Your task to perform on an android device: toggle wifi Image 0: 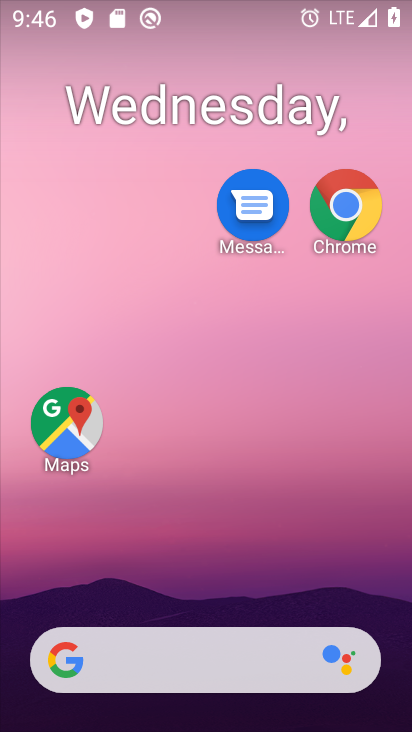
Step 0: drag from (222, 578) to (219, 284)
Your task to perform on an android device: toggle wifi Image 1: 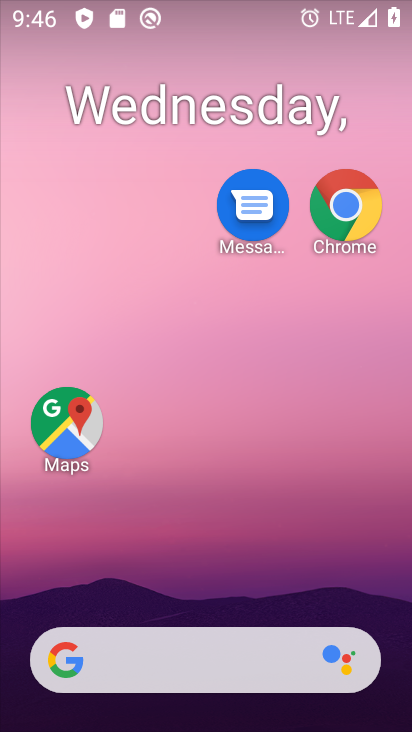
Step 1: drag from (233, 564) to (284, 38)
Your task to perform on an android device: toggle wifi Image 2: 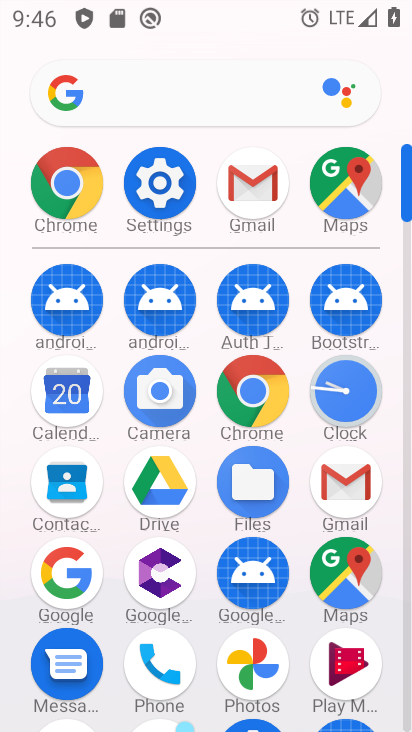
Step 2: click (138, 185)
Your task to perform on an android device: toggle wifi Image 3: 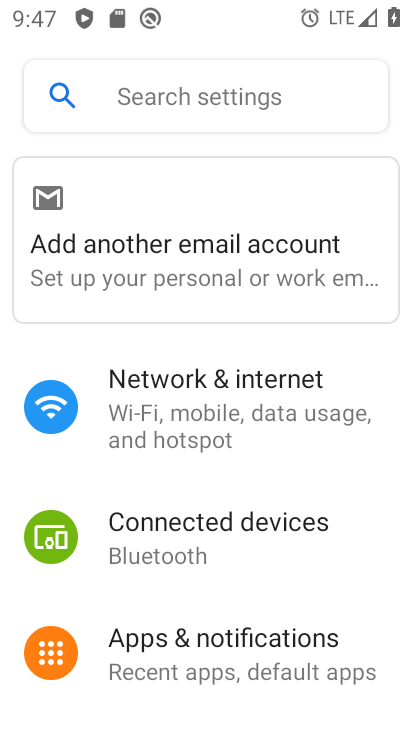
Step 3: drag from (261, 585) to (334, 131)
Your task to perform on an android device: toggle wifi Image 4: 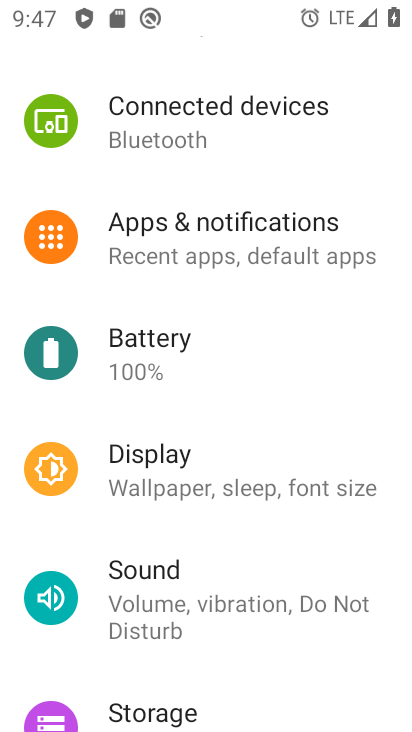
Step 4: drag from (255, 126) to (241, 544)
Your task to perform on an android device: toggle wifi Image 5: 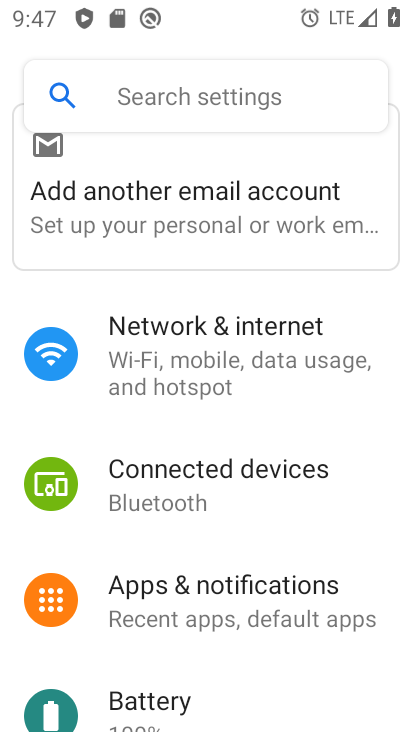
Step 5: click (189, 356)
Your task to perform on an android device: toggle wifi Image 6: 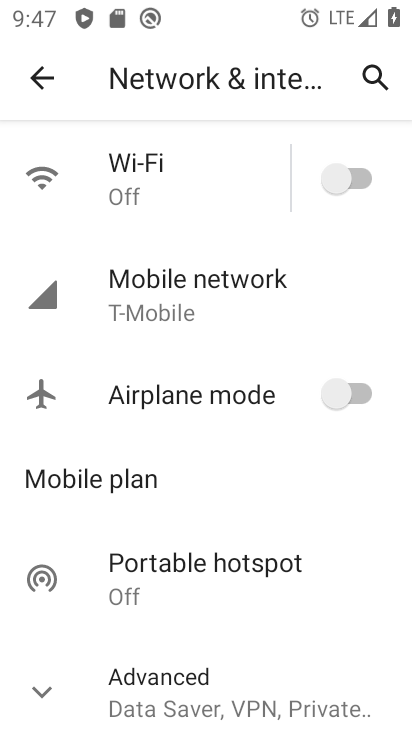
Step 6: click (200, 192)
Your task to perform on an android device: toggle wifi Image 7: 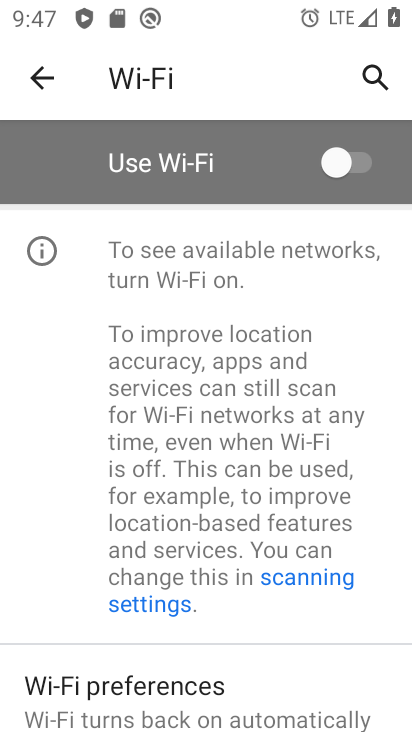
Step 7: click (181, 161)
Your task to perform on an android device: toggle wifi Image 8: 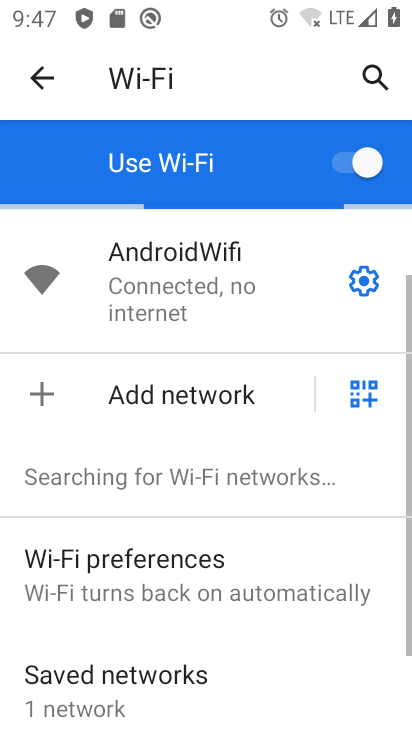
Step 8: task complete